Your task to perform on an android device: read, delete, or share a saved page in the chrome app Image 0: 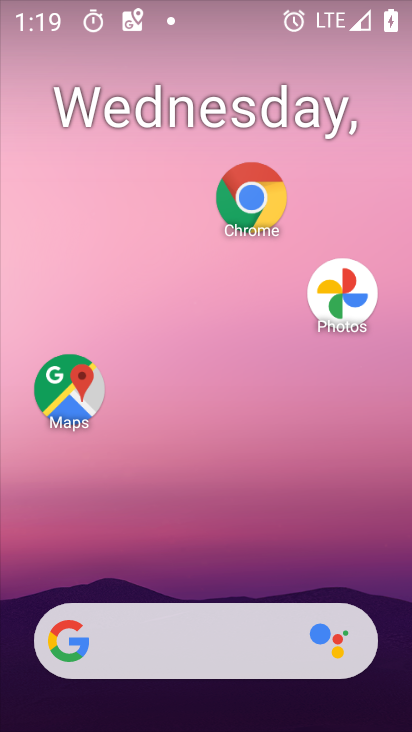
Step 0: drag from (247, 580) to (396, 75)
Your task to perform on an android device: read, delete, or share a saved page in the chrome app Image 1: 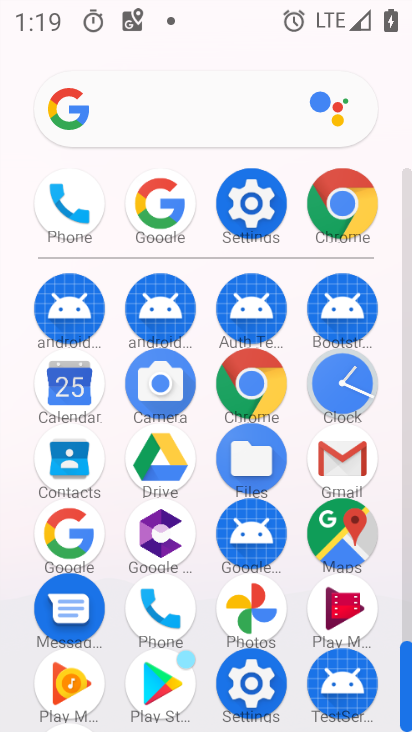
Step 1: click (339, 186)
Your task to perform on an android device: read, delete, or share a saved page in the chrome app Image 2: 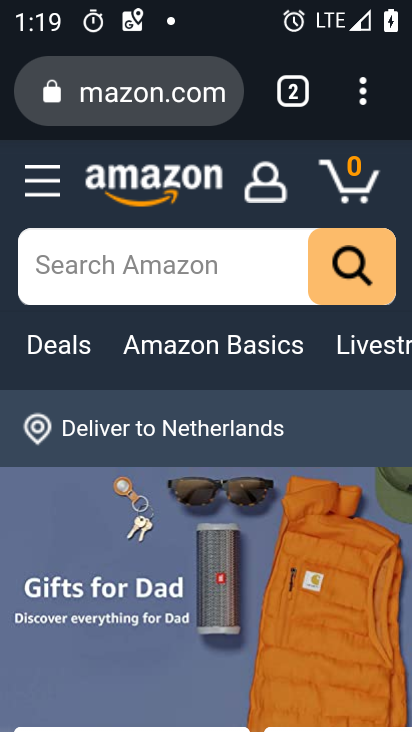
Step 2: click (358, 102)
Your task to perform on an android device: read, delete, or share a saved page in the chrome app Image 3: 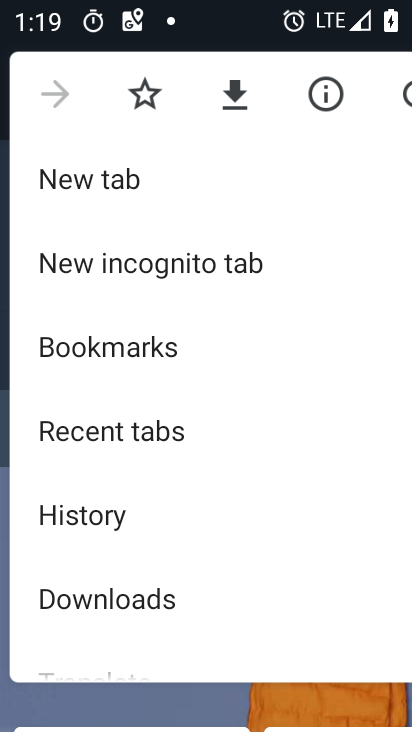
Step 3: drag from (174, 502) to (264, 229)
Your task to perform on an android device: read, delete, or share a saved page in the chrome app Image 4: 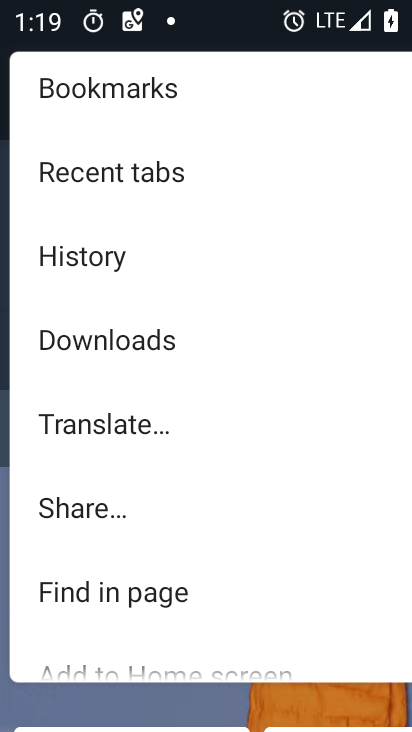
Step 4: drag from (172, 476) to (174, 308)
Your task to perform on an android device: read, delete, or share a saved page in the chrome app Image 5: 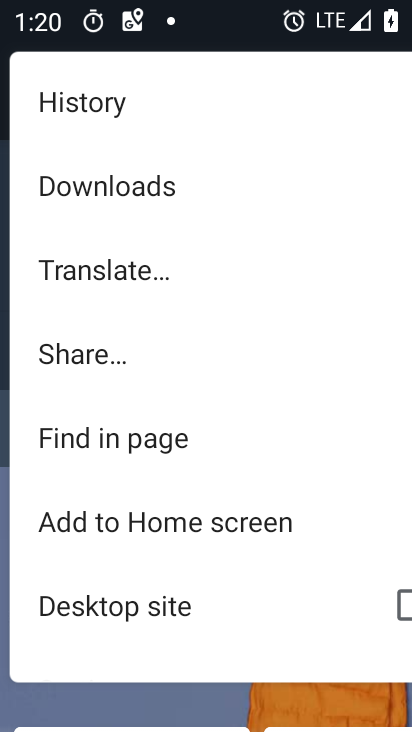
Step 5: drag from (98, 543) to (221, 122)
Your task to perform on an android device: read, delete, or share a saved page in the chrome app Image 6: 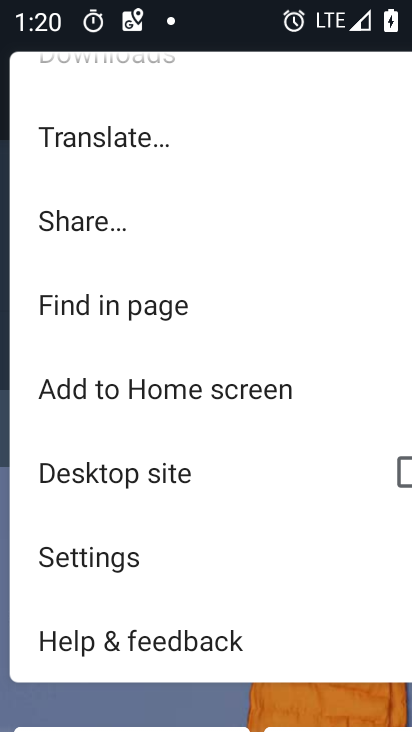
Step 6: click (129, 558)
Your task to perform on an android device: read, delete, or share a saved page in the chrome app Image 7: 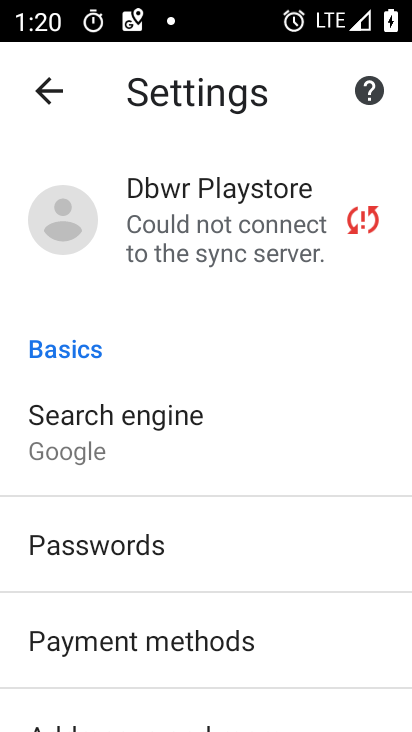
Step 7: drag from (121, 659) to (222, 393)
Your task to perform on an android device: read, delete, or share a saved page in the chrome app Image 8: 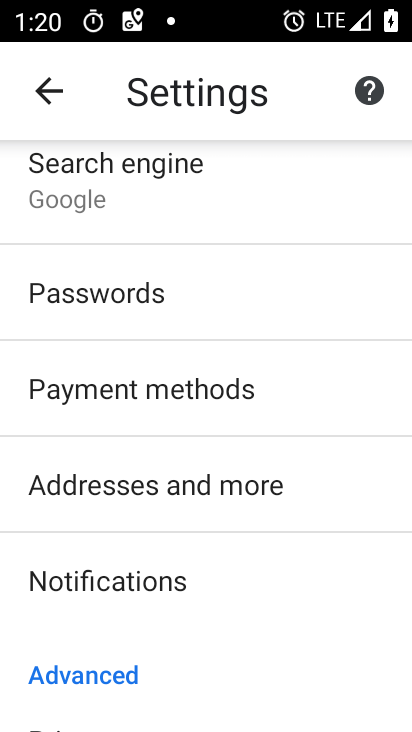
Step 8: drag from (175, 579) to (171, 422)
Your task to perform on an android device: read, delete, or share a saved page in the chrome app Image 9: 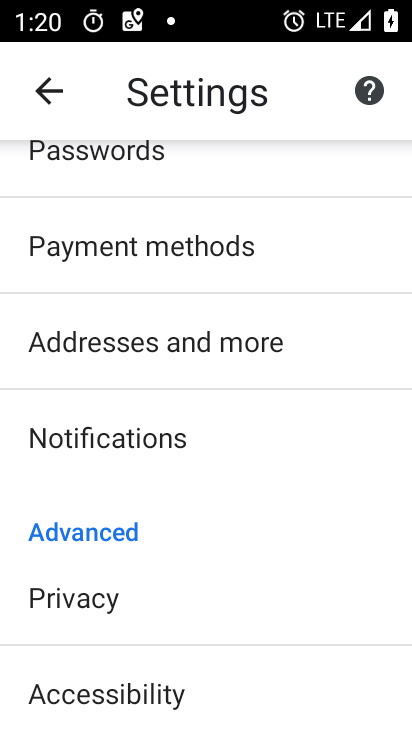
Step 9: click (40, 90)
Your task to perform on an android device: read, delete, or share a saved page in the chrome app Image 10: 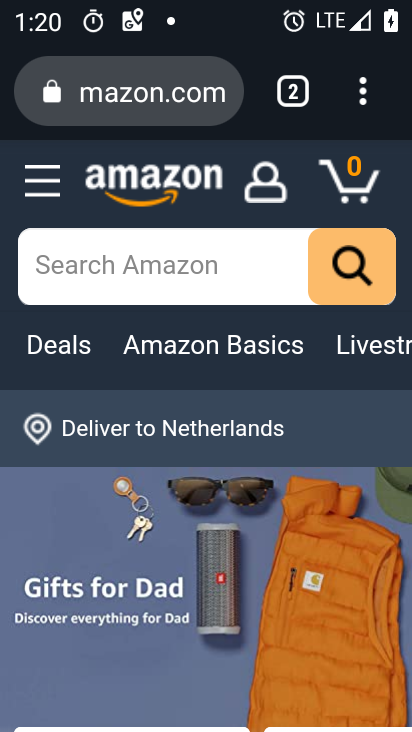
Step 10: click (355, 90)
Your task to perform on an android device: read, delete, or share a saved page in the chrome app Image 11: 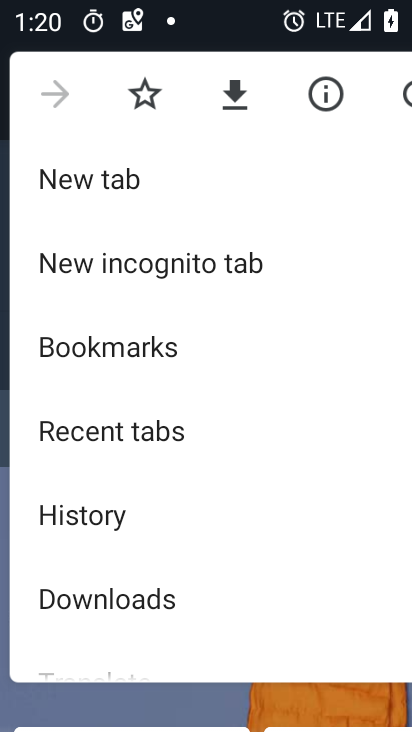
Step 11: click (107, 599)
Your task to perform on an android device: read, delete, or share a saved page in the chrome app Image 12: 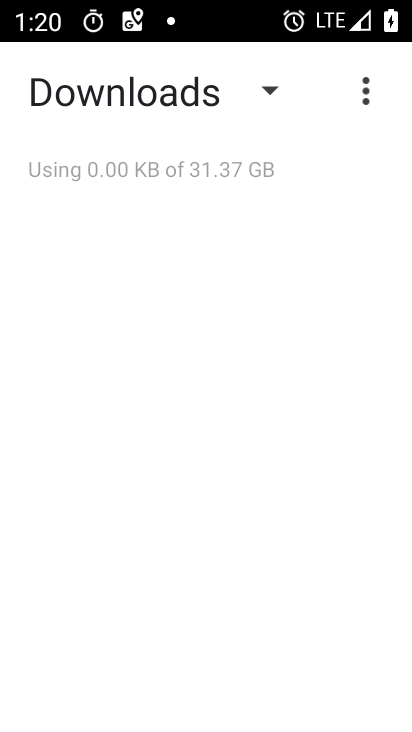
Step 12: click (272, 87)
Your task to perform on an android device: read, delete, or share a saved page in the chrome app Image 13: 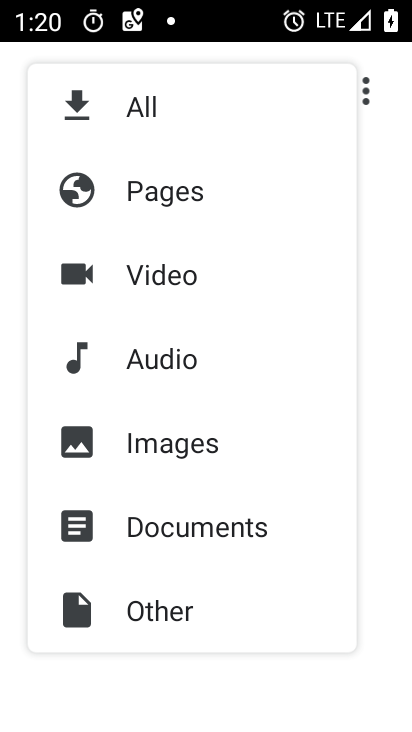
Step 13: click (177, 204)
Your task to perform on an android device: read, delete, or share a saved page in the chrome app Image 14: 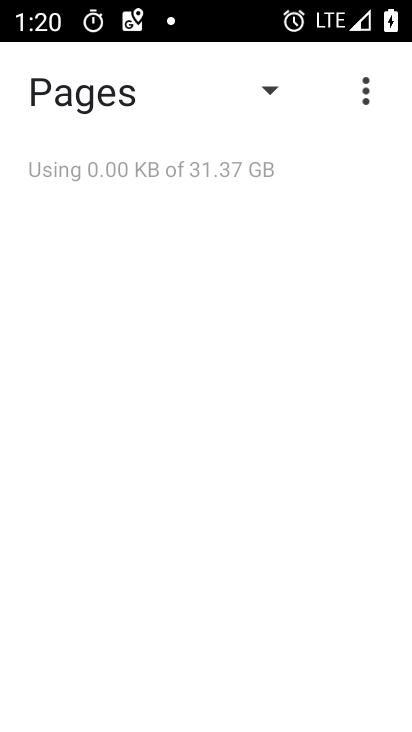
Step 14: task complete